Your task to perform on an android device: Open Google Maps Image 0: 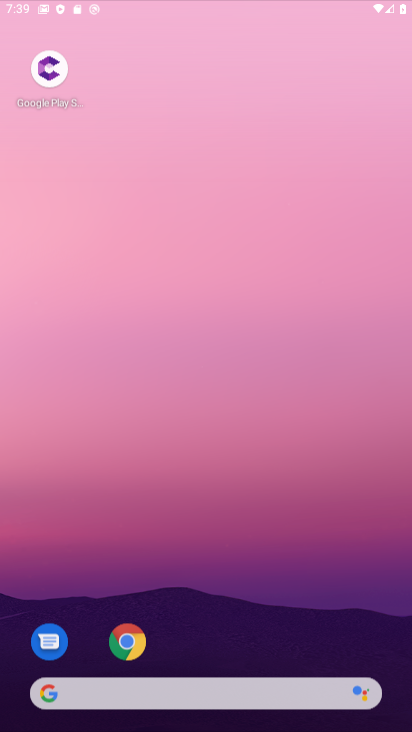
Step 0: click (261, 161)
Your task to perform on an android device: Open Google Maps Image 1: 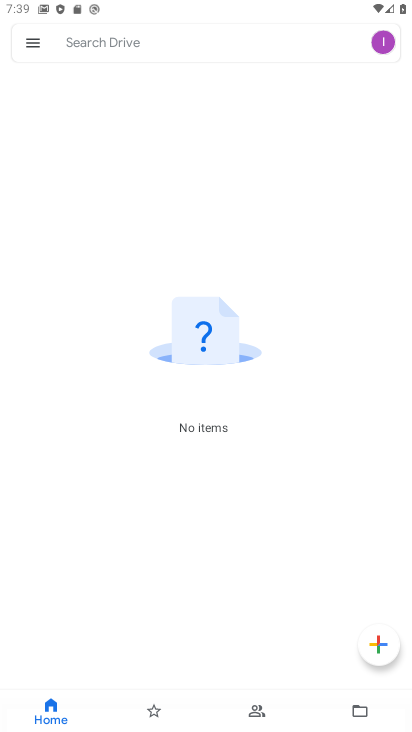
Step 1: press home button
Your task to perform on an android device: Open Google Maps Image 2: 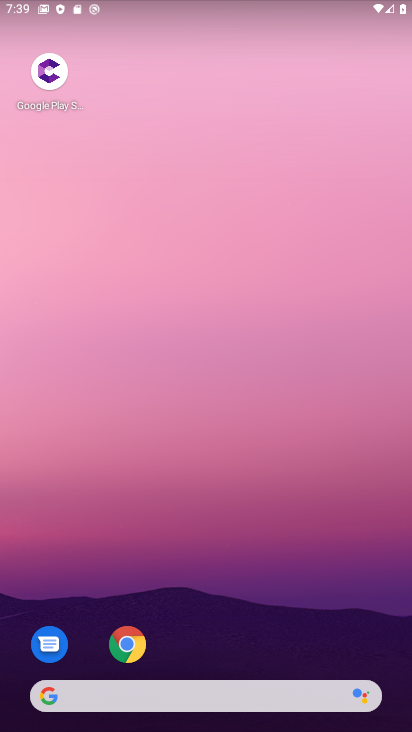
Step 2: drag from (266, 581) to (295, 165)
Your task to perform on an android device: Open Google Maps Image 3: 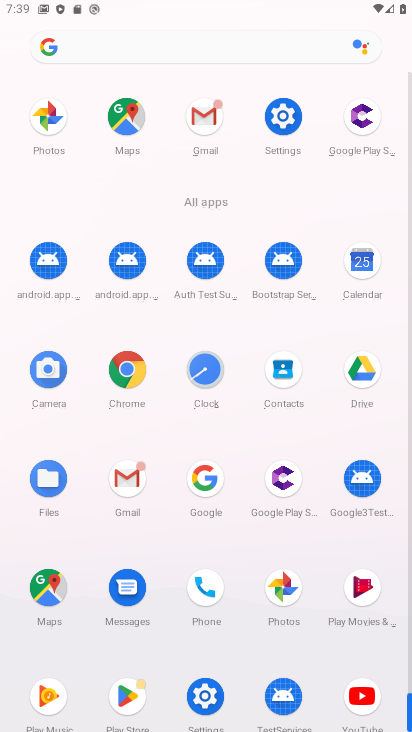
Step 3: click (45, 591)
Your task to perform on an android device: Open Google Maps Image 4: 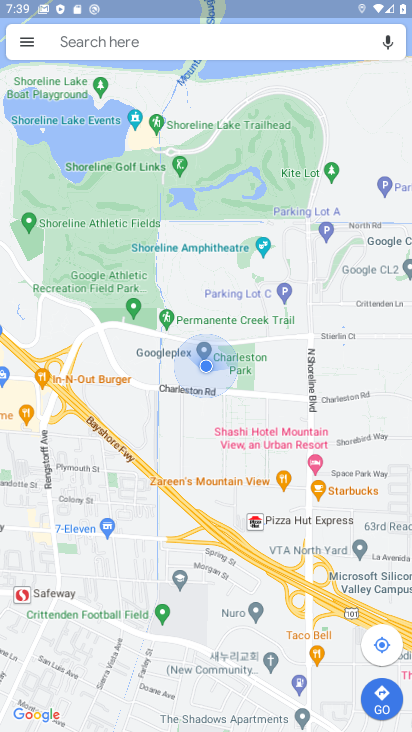
Step 4: task complete